Your task to perform on an android device: see creations saved in the google photos Image 0: 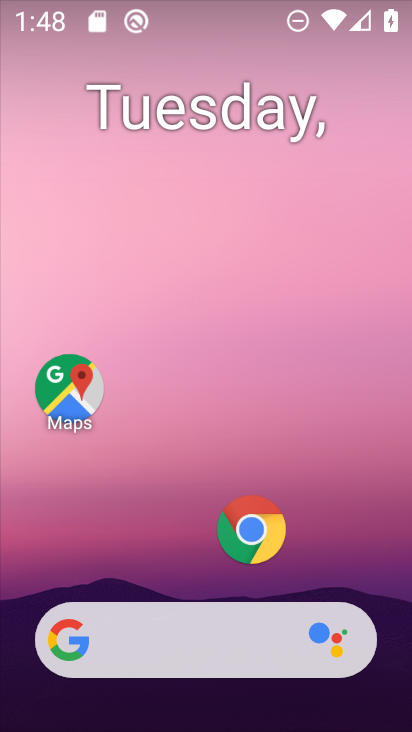
Step 0: drag from (235, 671) to (256, 176)
Your task to perform on an android device: see creations saved in the google photos Image 1: 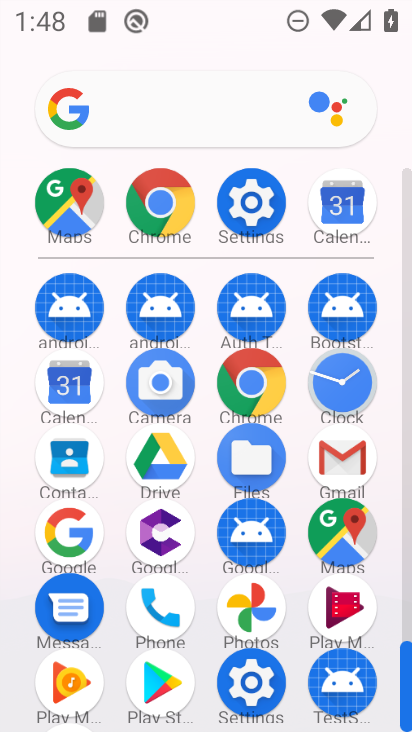
Step 1: click (246, 589)
Your task to perform on an android device: see creations saved in the google photos Image 2: 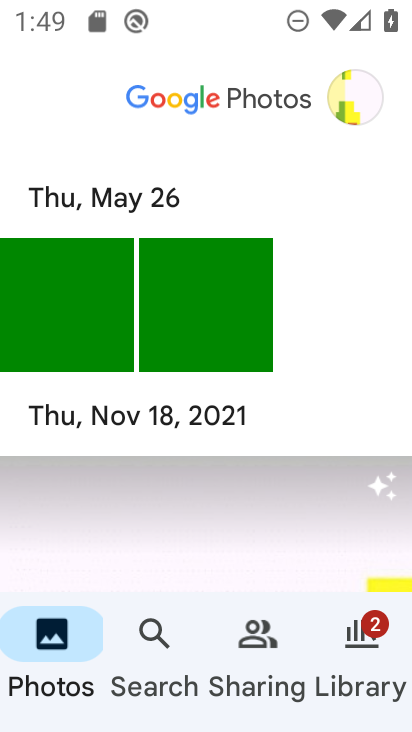
Step 2: click (349, 102)
Your task to perform on an android device: see creations saved in the google photos Image 3: 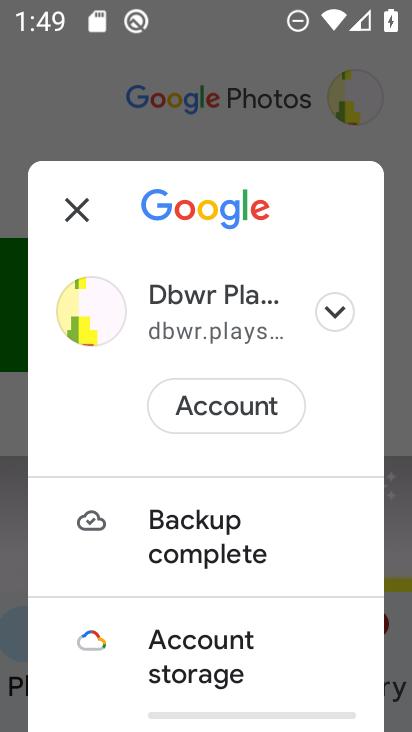
Step 3: click (93, 202)
Your task to perform on an android device: see creations saved in the google photos Image 4: 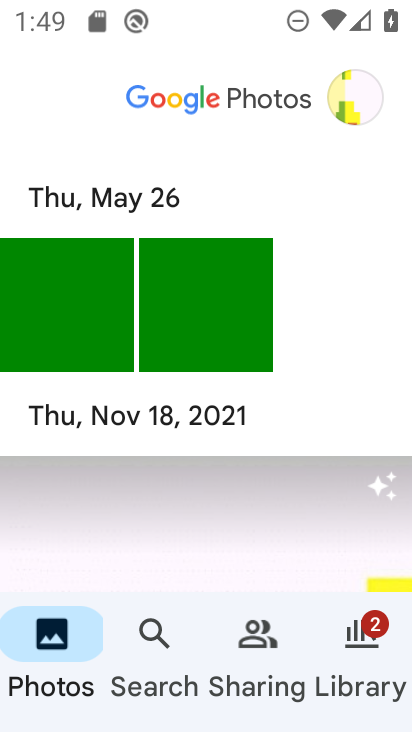
Step 4: drag from (126, 463) to (156, 217)
Your task to perform on an android device: see creations saved in the google photos Image 5: 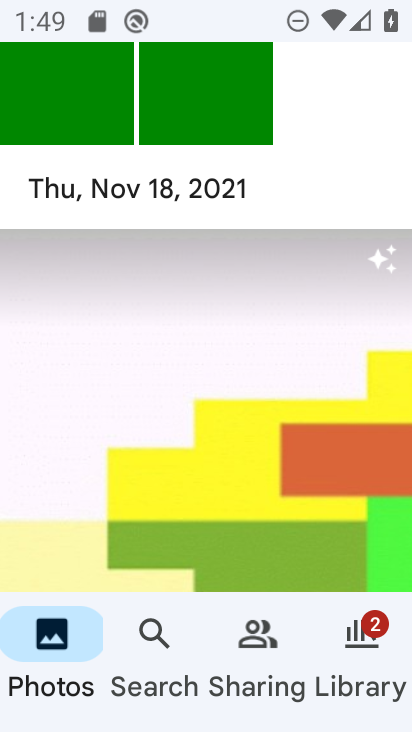
Step 5: drag from (159, 498) to (157, 1)
Your task to perform on an android device: see creations saved in the google photos Image 6: 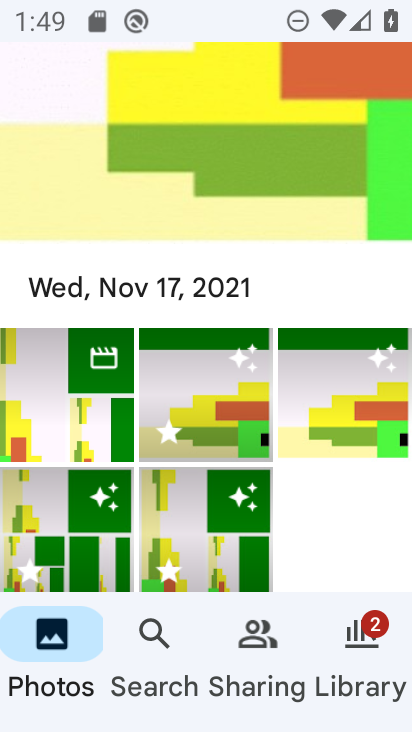
Step 6: click (213, 397)
Your task to perform on an android device: see creations saved in the google photos Image 7: 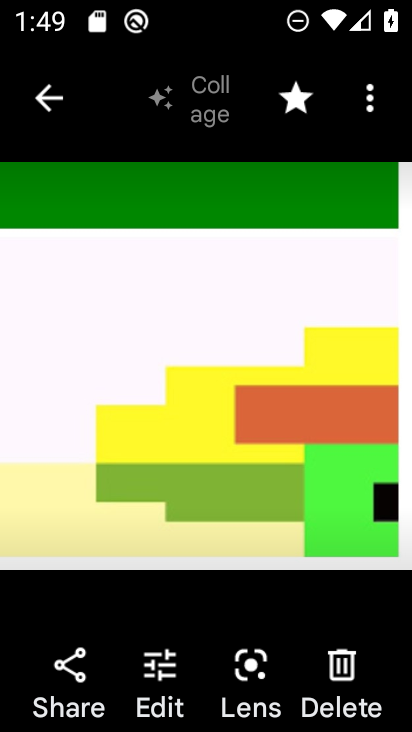
Step 7: click (373, 114)
Your task to perform on an android device: see creations saved in the google photos Image 8: 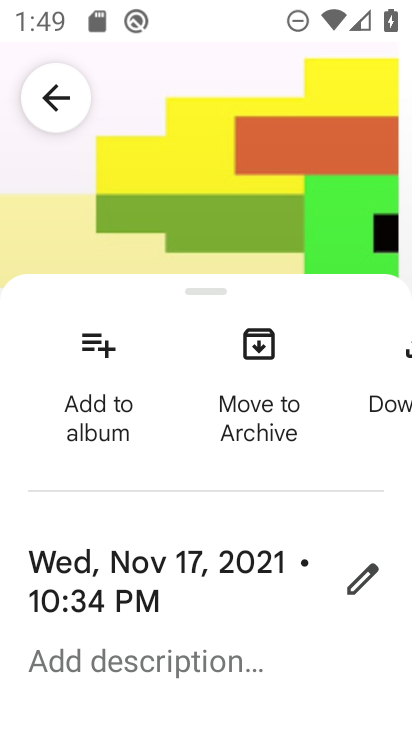
Step 8: task complete